Your task to perform on an android device: Open maps Image 0: 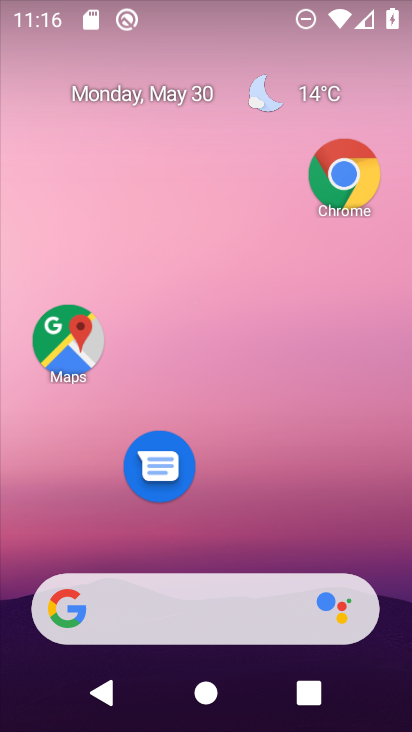
Step 0: click (86, 348)
Your task to perform on an android device: Open maps Image 1: 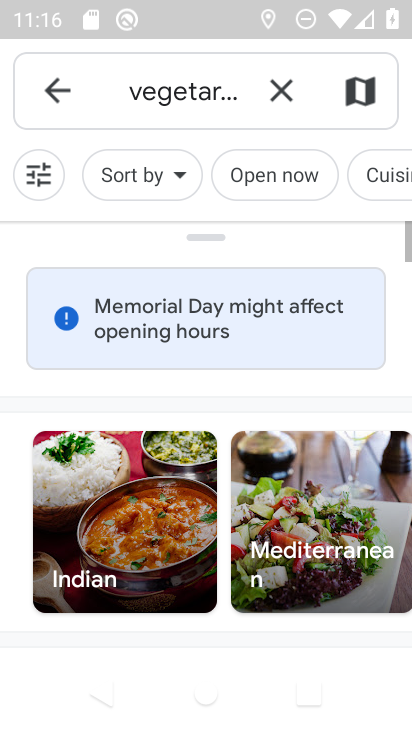
Step 1: task complete